Your task to perform on an android device: move an email to a new category in the gmail app Image 0: 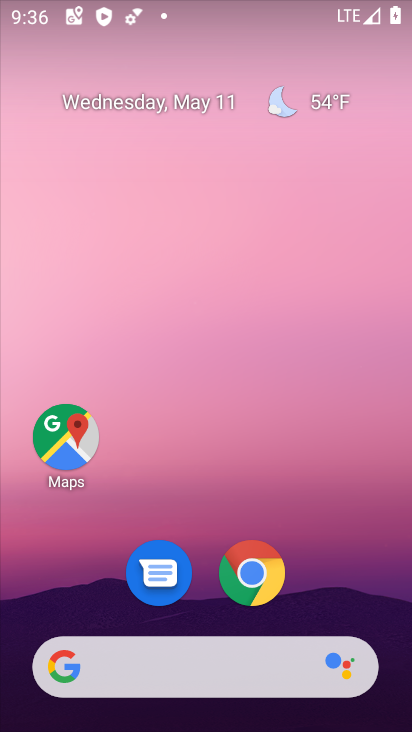
Step 0: drag from (353, 653) to (345, 137)
Your task to perform on an android device: move an email to a new category in the gmail app Image 1: 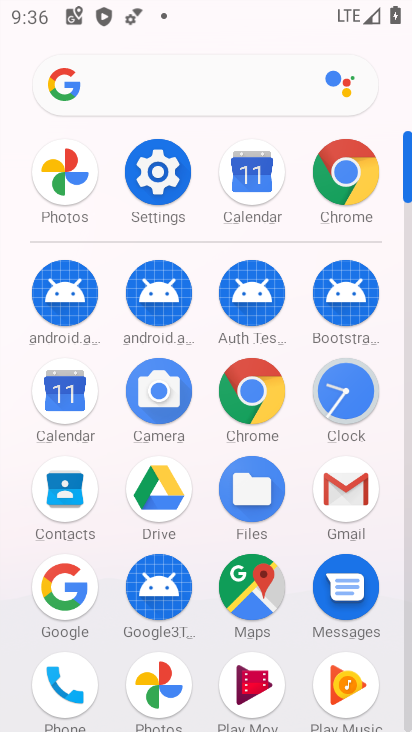
Step 1: click (360, 484)
Your task to perform on an android device: move an email to a new category in the gmail app Image 2: 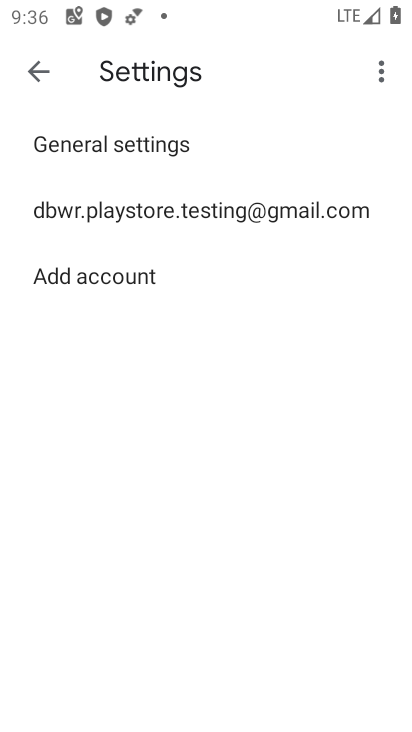
Step 2: task complete